Your task to perform on an android device: See recent photos Image 0: 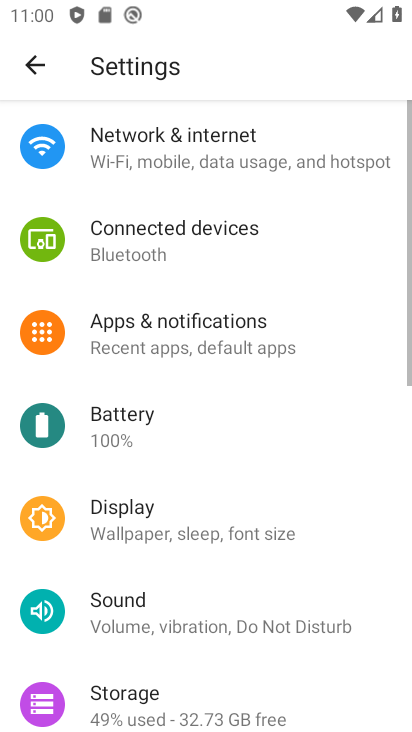
Step 0: press home button
Your task to perform on an android device: See recent photos Image 1: 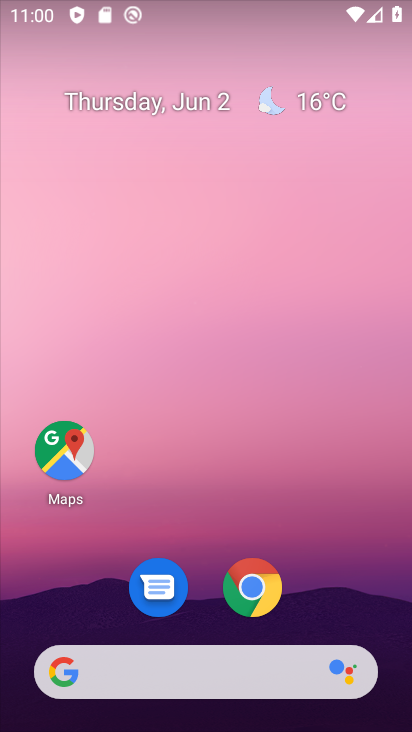
Step 1: drag from (332, 572) to (376, 205)
Your task to perform on an android device: See recent photos Image 2: 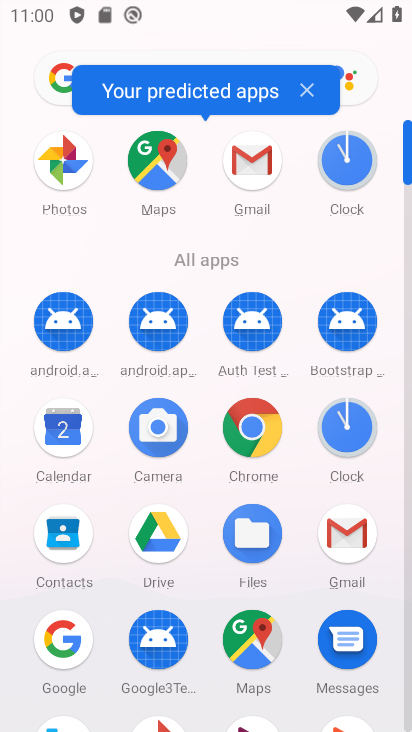
Step 2: drag from (199, 596) to (213, 462)
Your task to perform on an android device: See recent photos Image 3: 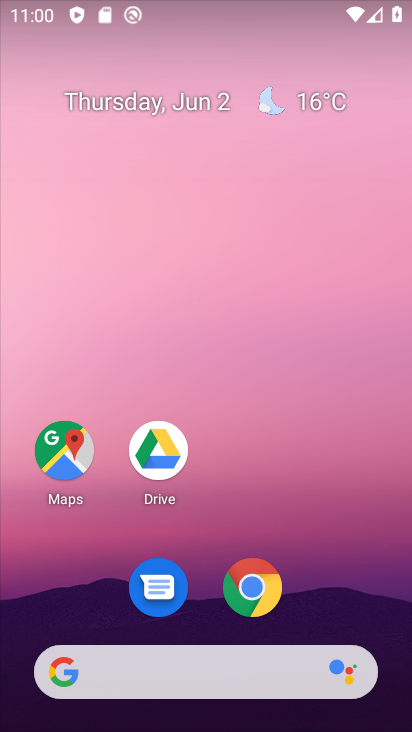
Step 3: drag from (230, 498) to (287, 0)
Your task to perform on an android device: See recent photos Image 4: 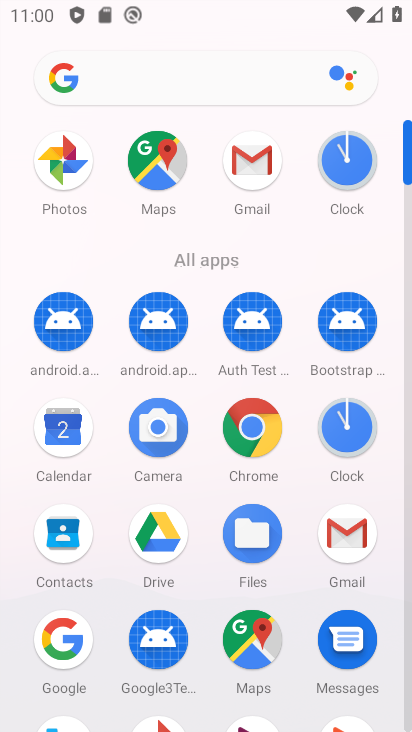
Step 4: drag from (295, 265) to (331, 92)
Your task to perform on an android device: See recent photos Image 5: 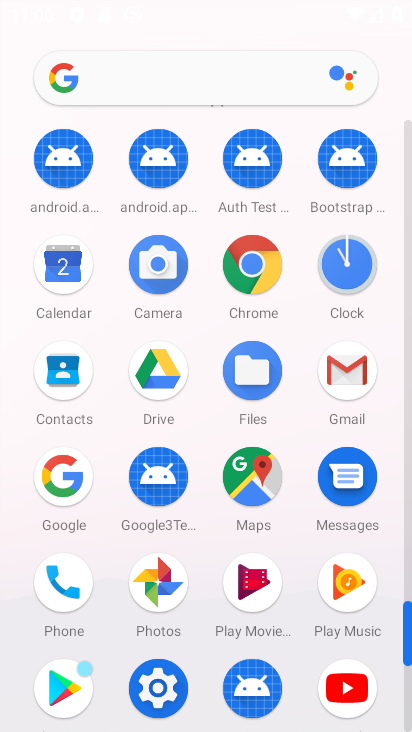
Step 5: click (151, 560)
Your task to perform on an android device: See recent photos Image 6: 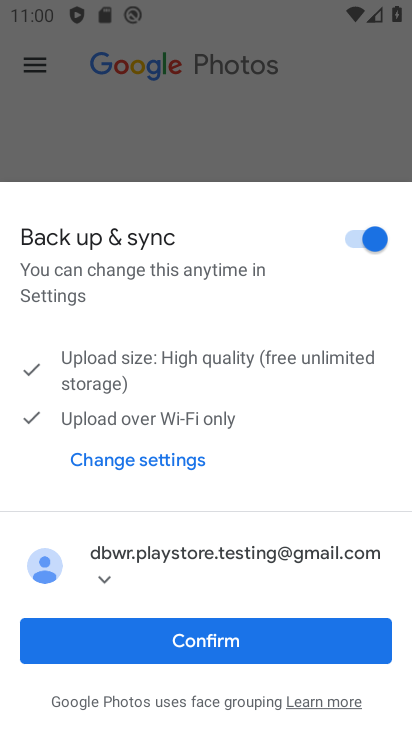
Step 6: click (228, 634)
Your task to perform on an android device: See recent photos Image 7: 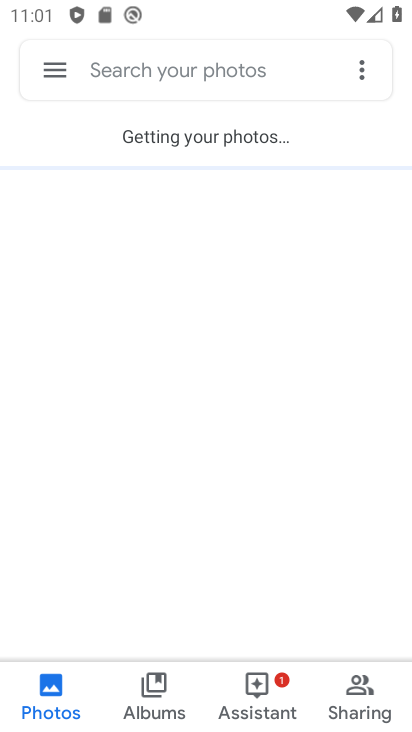
Step 7: click (55, 68)
Your task to perform on an android device: See recent photos Image 8: 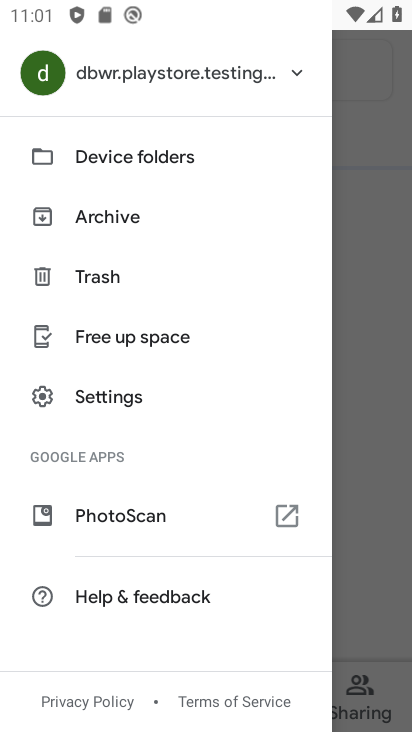
Step 8: click (352, 202)
Your task to perform on an android device: See recent photos Image 9: 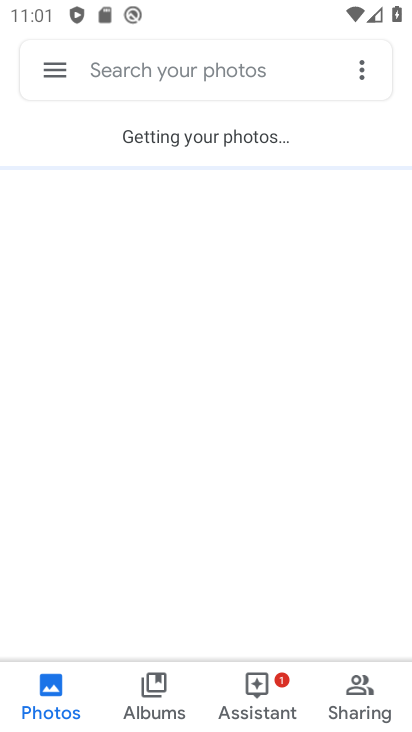
Step 9: task complete